Your task to perform on an android device: check storage Image 0: 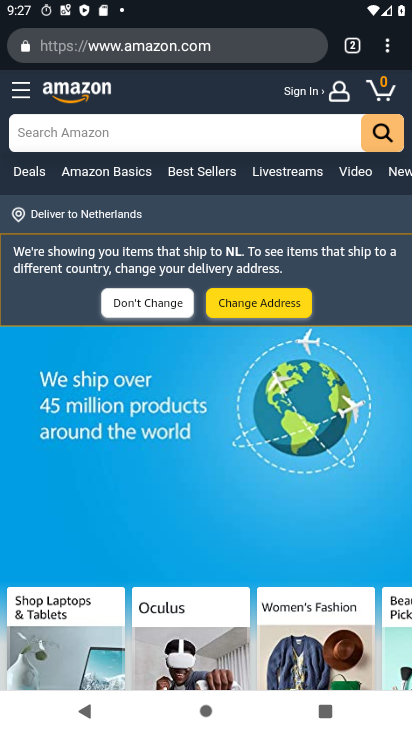
Step 0: press home button
Your task to perform on an android device: check storage Image 1: 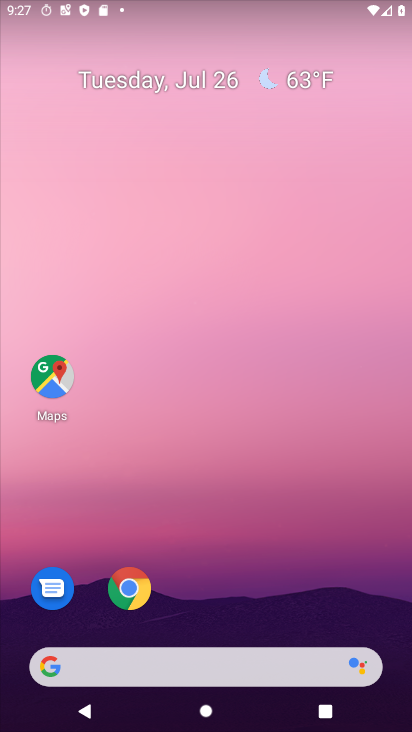
Step 1: drag from (224, 622) to (264, 15)
Your task to perform on an android device: check storage Image 2: 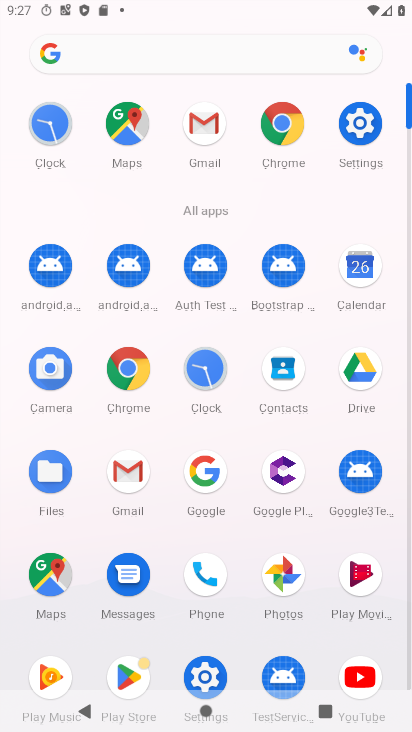
Step 2: click (353, 133)
Your task to perform on an android device: check storage Image 3: 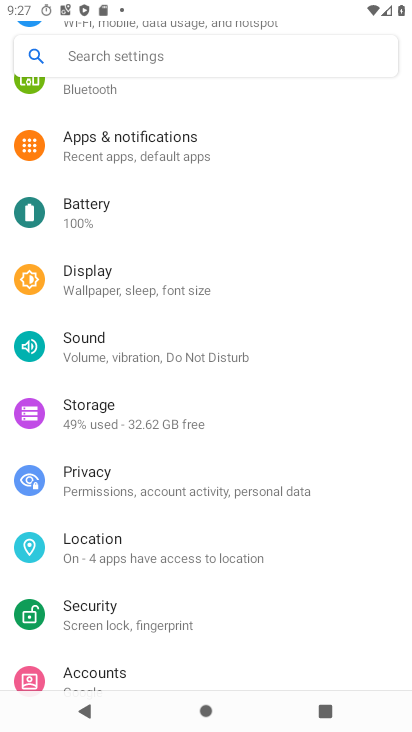
Step 3: click (139, 413)
Your task to perform on an android device: check storage Image 4: 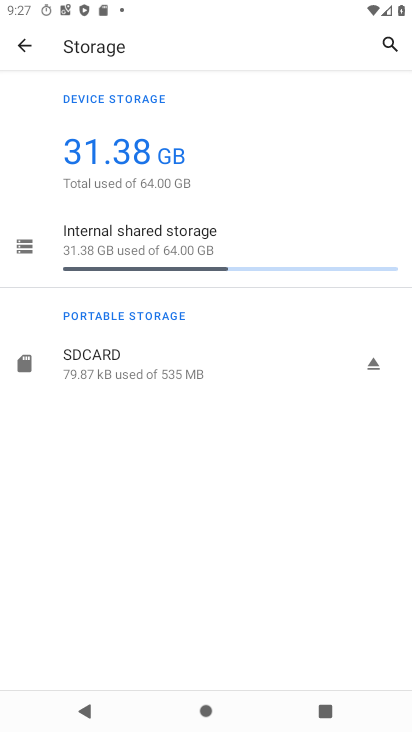
Step 4: task complete